Your task to perform on an android device: Search for seafood restaurants on Google Maps Image 0: 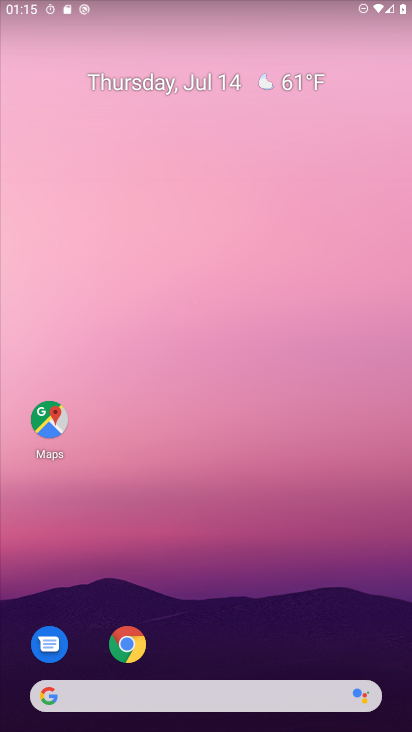
Step 0: drag from (258, 514) to (286, 29)
Your task to perform on an android device: Search for seafood restaurants on Google Maps Image 1: 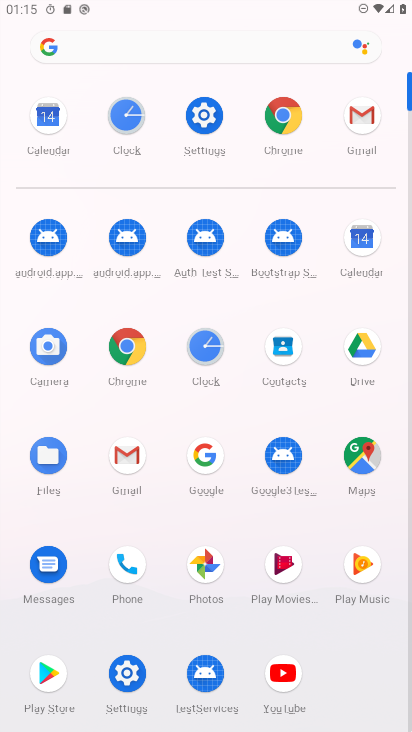
Step 1: click (359, 459)
Your task to perform on an android device: Search for seafood restaurants on Google Maps Image 2: 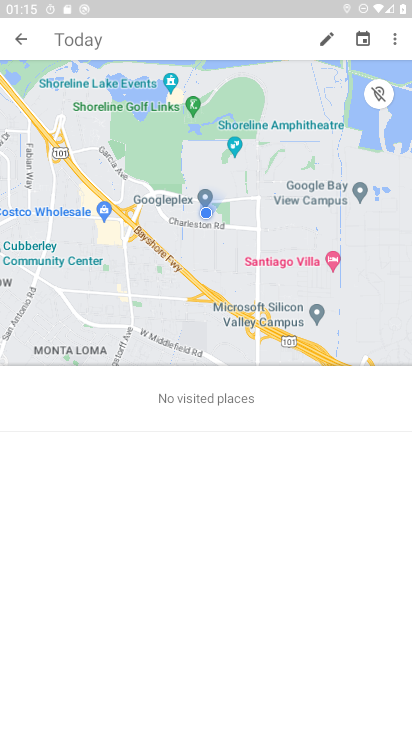
Step 2: click (135, 41)
Your task to perform on an android device: Search for seafood restaurants on Google Maps Image 3: 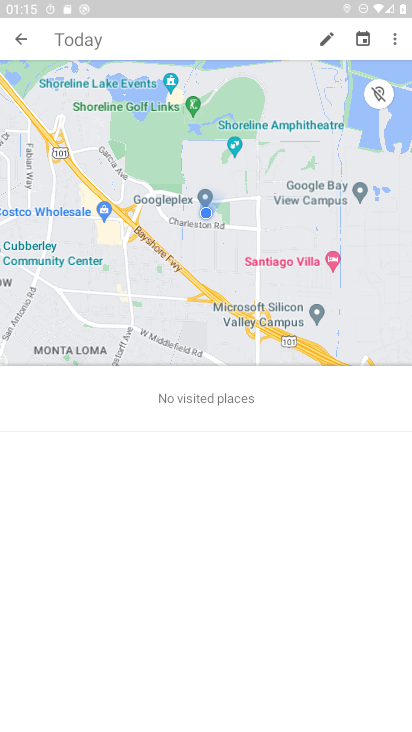
Step 3: click (21, 36)
Your task to perform on an android device: Search for seafood restaurants on Google Maps Image 4: 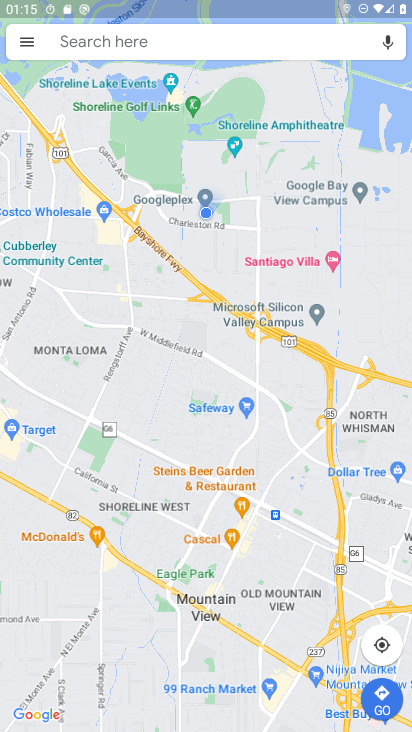
Step 4: click (226, 40)
Your task to perform on an android device: Search for seafood restaurants on Google Maps Image 5: 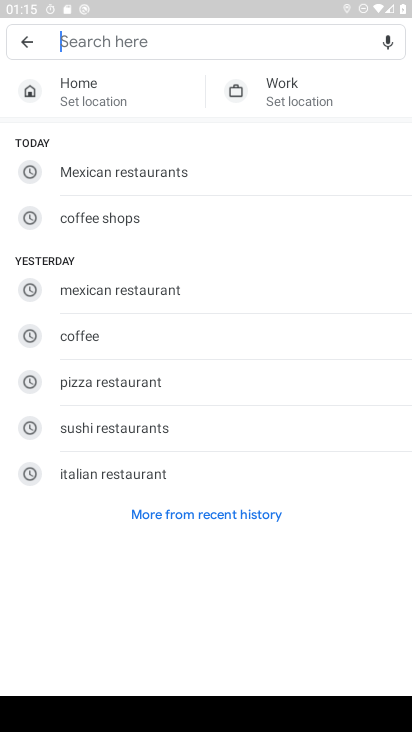
Step 5: type "seafood restaurants"
Your task to perform on an android device: Search for seafood restaurants on Google Maps Image 6: 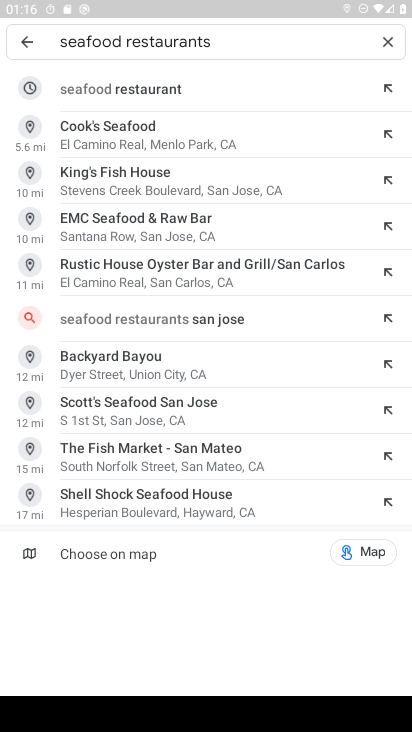
Step 6: press enter
Your task to perform on an android device: Search for seafood restaurants on Google Maps Image 7: 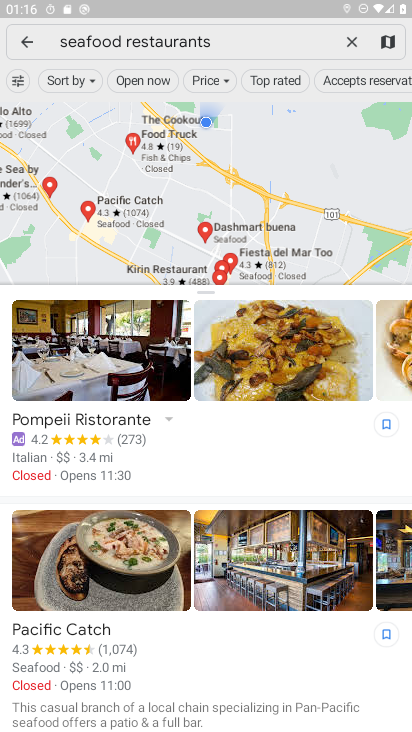
Step 7: task complete